Your task to perform on an android device: turn off location Image 0: 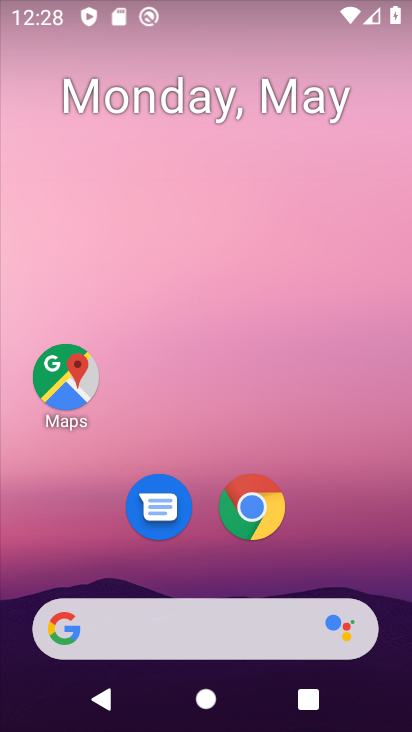
Step 0: drag from (234, 725) to (230, 115)
Your task to perform on an android device: turn off location Image 1: 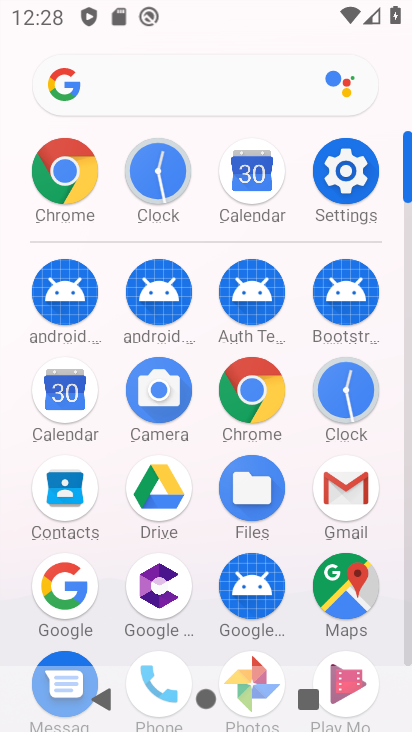
Step 1: click (345, 165)
Your task to perform on an android device: turn off location Image 2: 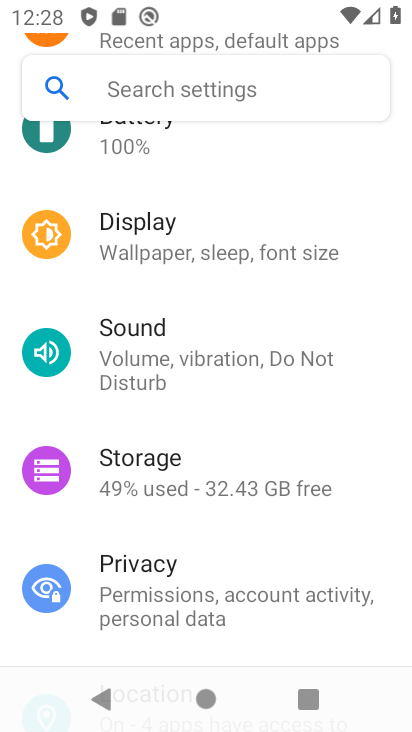
Step 2: drag from (203, 627) to (222, 186)
Your task to perform on an android device: turn off location Image 3: 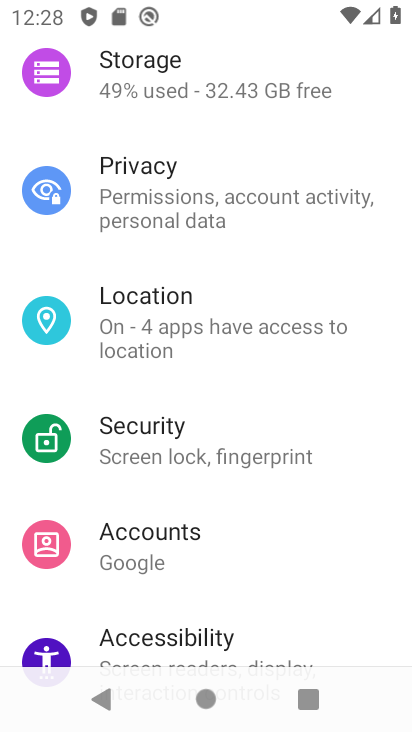
Step 3: click (141, 337)
Your task to perform on an android device: turn off location Image 4: 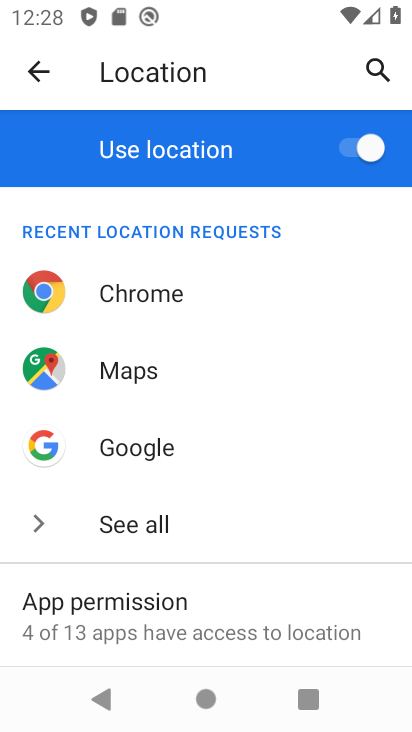
Step 4: click (356, 144)
Your task to perform on an android device: turn off location Image 5: 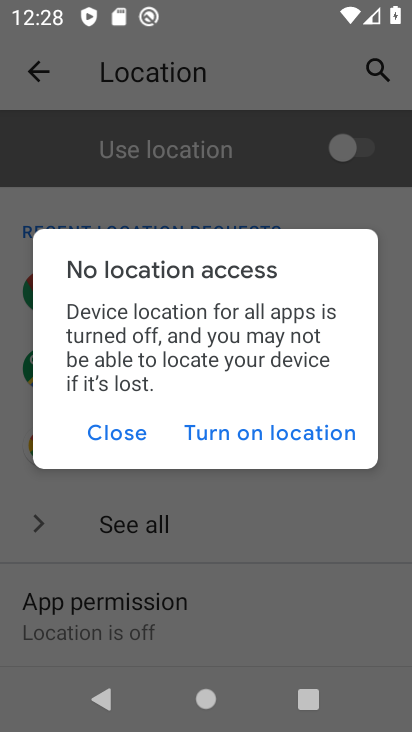
Step 5: click (115, 433)
Your task to perform on an android device: turn off location Image 6: 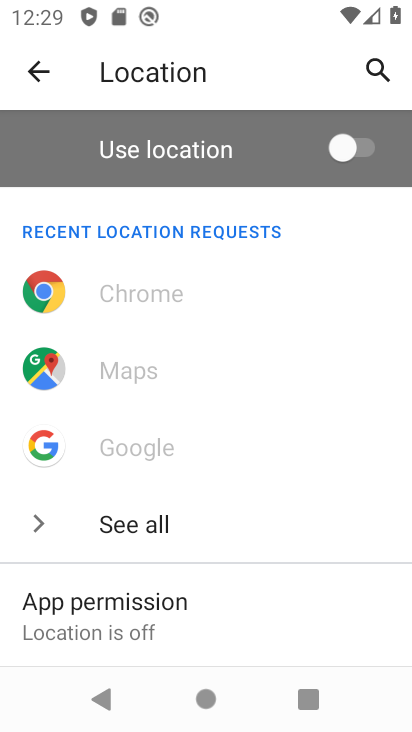
Step 6: task complete